Your task to perform on an android device: Is it going to rain today? Image 0: 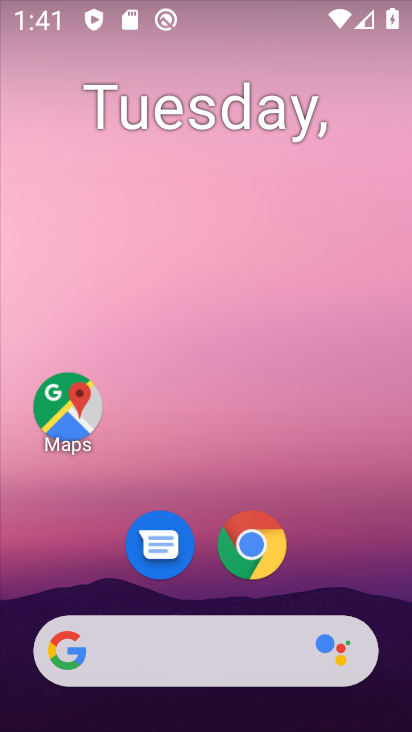
Step 0: drag from (277, 242) to (316, 7)
Your task to perform on an android device: Is it going to rain today? Image 1: 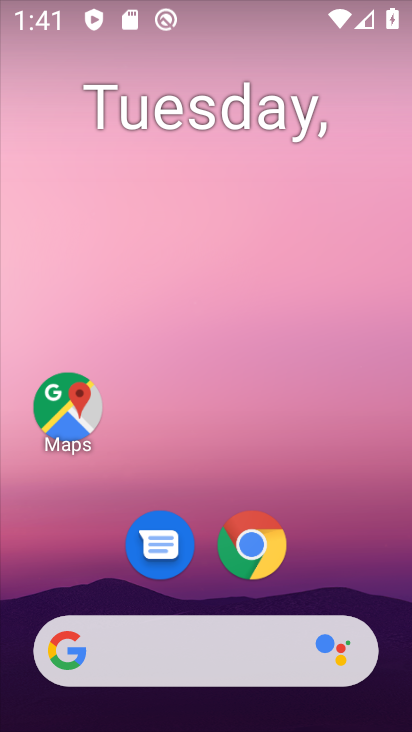
Step 1: drag from (4, 560) to (17, 23)
Your task to perform on an android device: Is it going to rain today? Image 2: 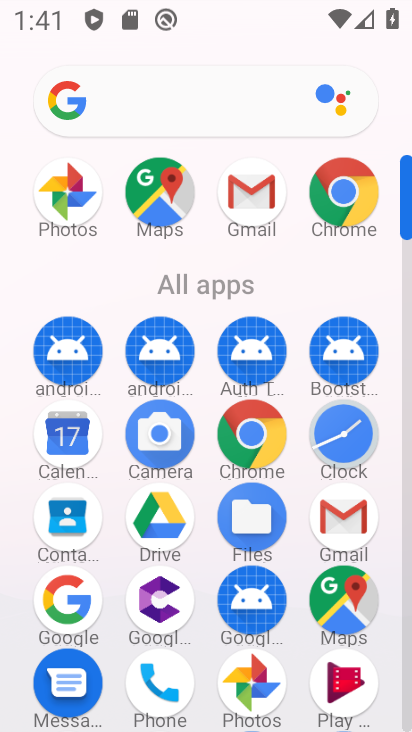
Step 2: drag from (23, 555) to (22, 346)
Your task to perform on an android device: Is it going to rain today? Image 3: 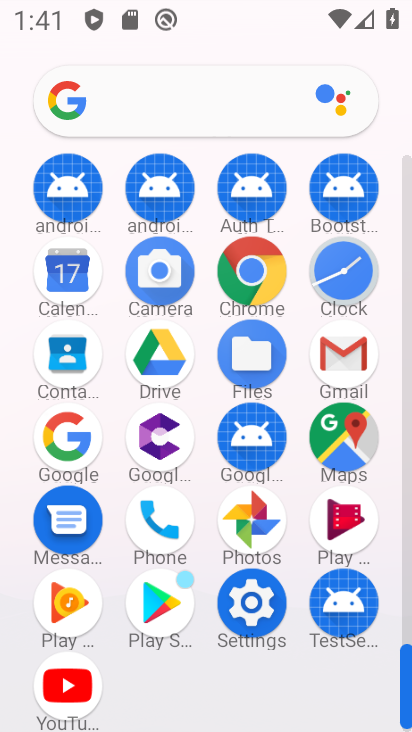
Step 3: click (244, 269)
Your task to perform on an android device: Is it going to rain today? Image 4: 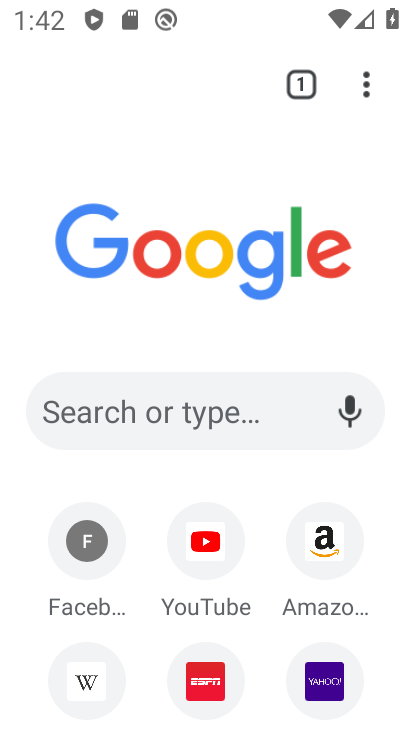
Step 4: click (196, 417)
Your task to perform on an android device: Is it going to rain today? Image 5: 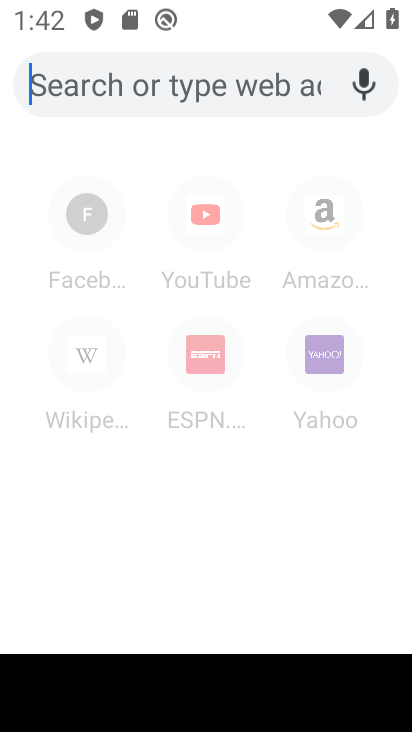
Step 5: type "Is it going to rain today?"
Your task to perform on an android device: Is it going to rain today? Image 6: 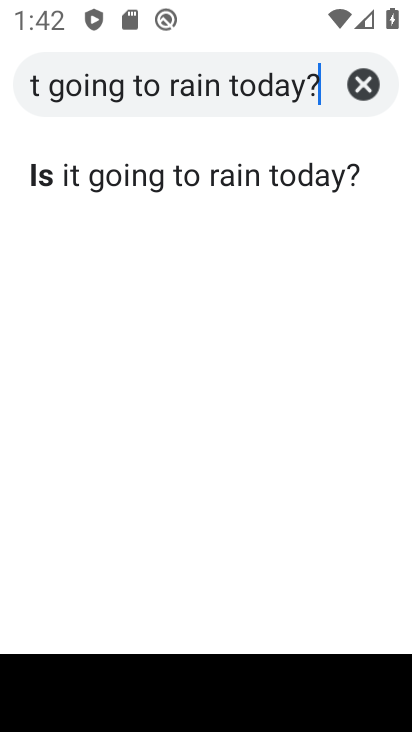
Step 6: type ""
Your task to perform on an android device: Is it going to rain today? Image 7: 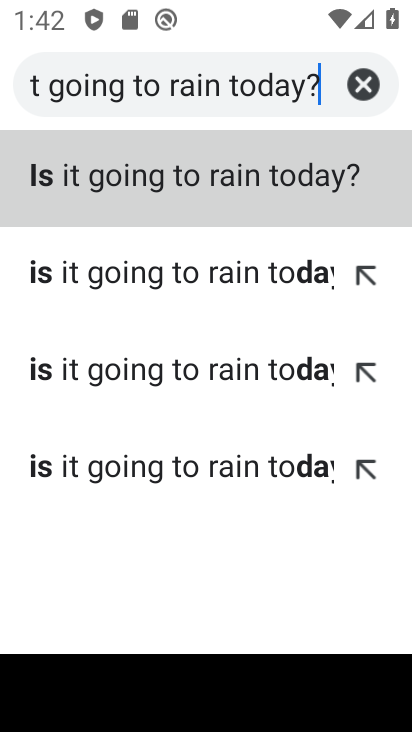
Step 7: click (154, 169)
Your task to perform on an android device: Is it going to rain today? Image 8: 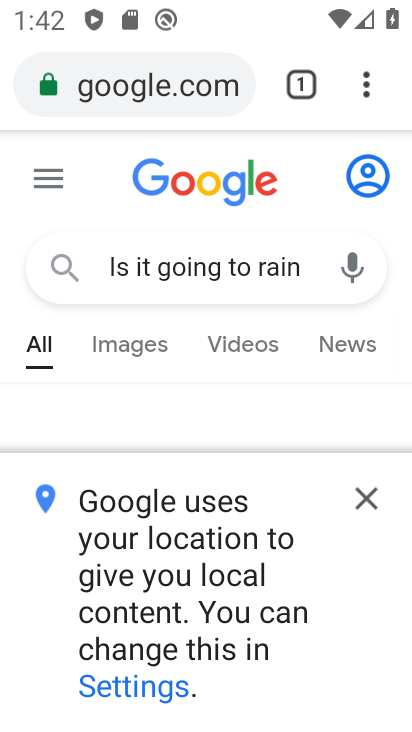
Step 8: click (369, 498)
Your task to perform on an android device: Is it going to rain today? Image 9: 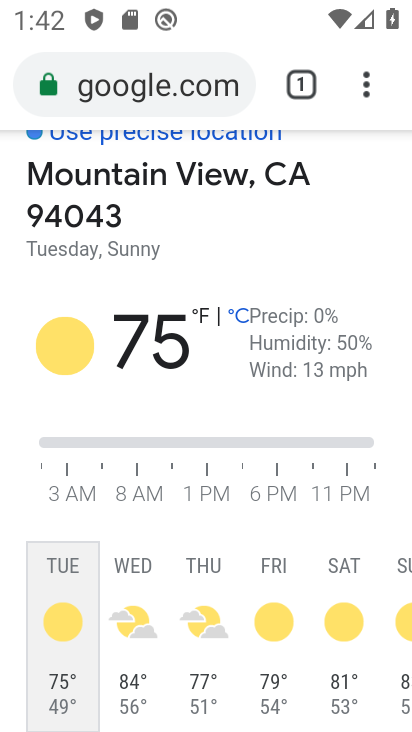
Step 9: task complete